Your task to perform on an android device: star an email in the gmail app Image 0: 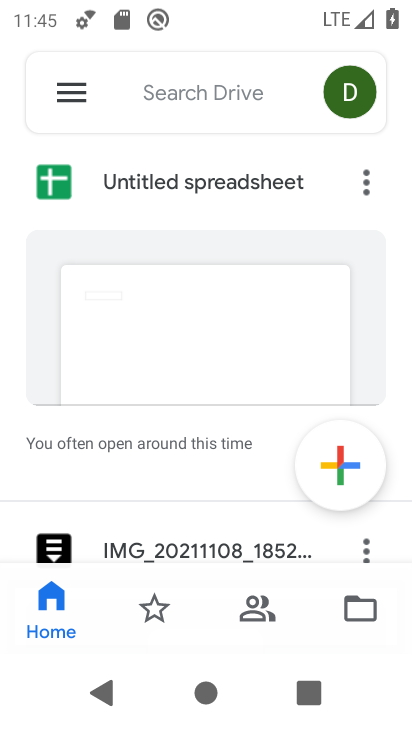
Step 0: press home button
Your task to perform on an android device: star an email in the gmail app Image 1: 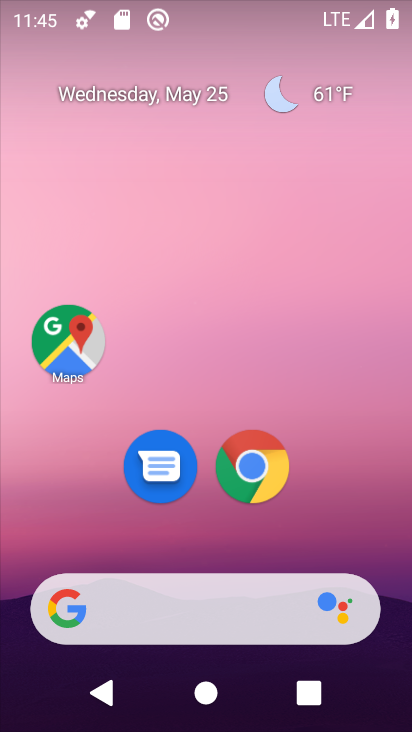
Step 1: drag from (197, 566) to (245, 18)
Your task to perform on an android device: star an email in the gmail app Image 2: 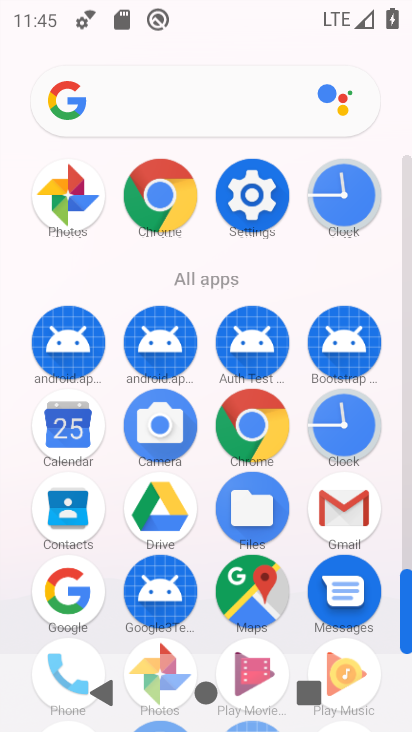
Step 2: click (342, 494)
Your task to perform on an android device: star an email in the gmail app Image 3: 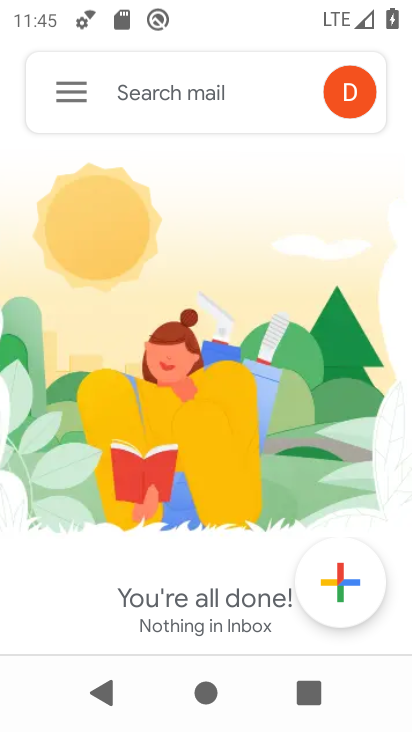
Step 3: click (74, 99)
Your task to perform on an android device: star an email in the gmail app Image 4: 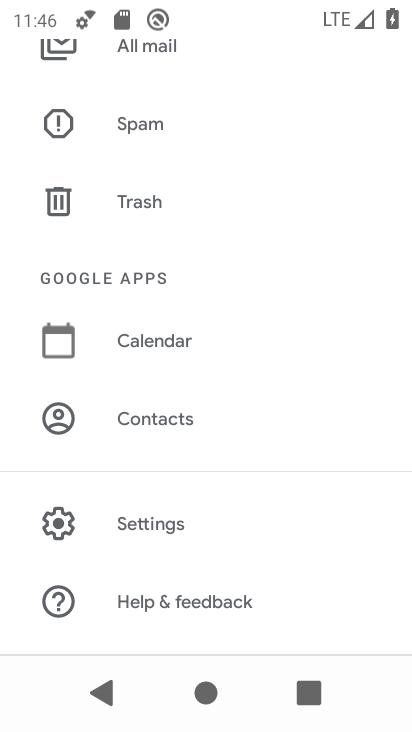
Step 4: click (176, 55)
Your task to perform on an android device: star an email in the gmail app Image 5: 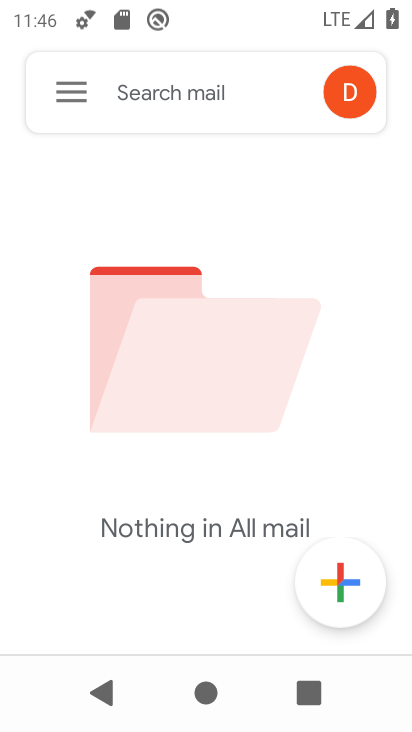
Step 5: task complete